Your task to perform on an android device: turn on location history Image 0: 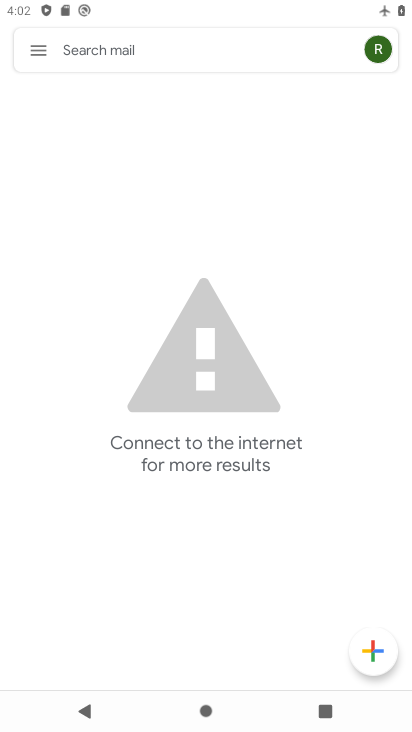
Step 0: press home button
Your task to perform on an android device: turn on location history Image 1: 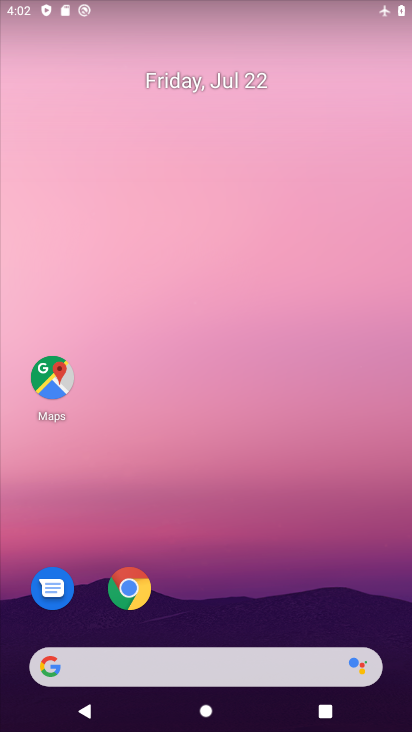
Step 1: press home button
Your task to perform on an android device: turn on location history Image 2: 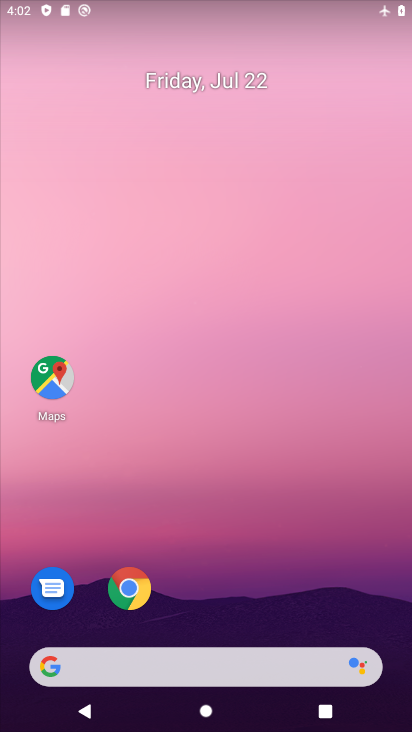
Step 2: drag from (257, 632) to (244, 215)
Your task to perform on an android device: turn on location history Image 3: 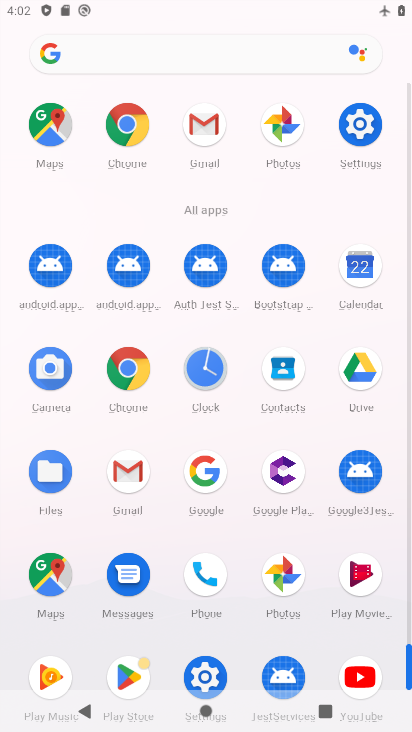
Step 3: click (46, 118)
Your task to perform on an android device: turn on location history Image 4: 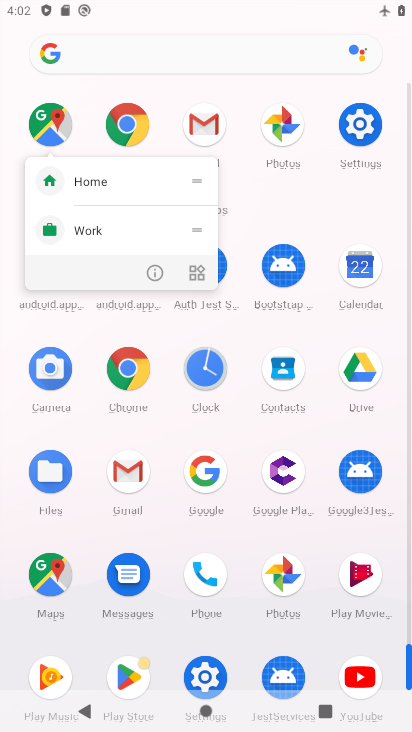
Step 4: click (46, 119)
Your task to perform on an android device: turn on location history Image 5: 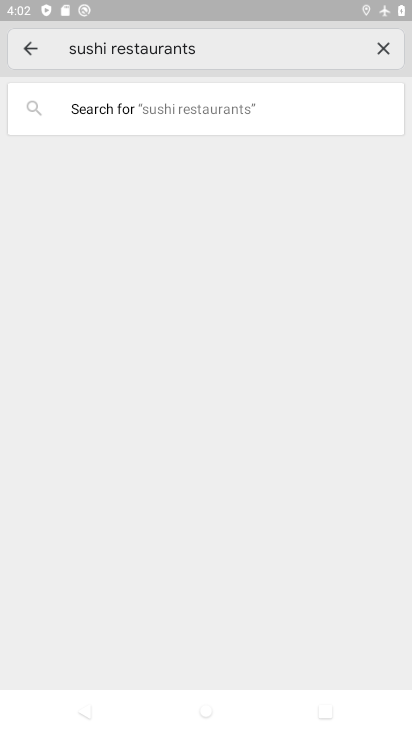
Step 5: click (46, 119)
Your task to perform on an android device: turn on location history Image 6: 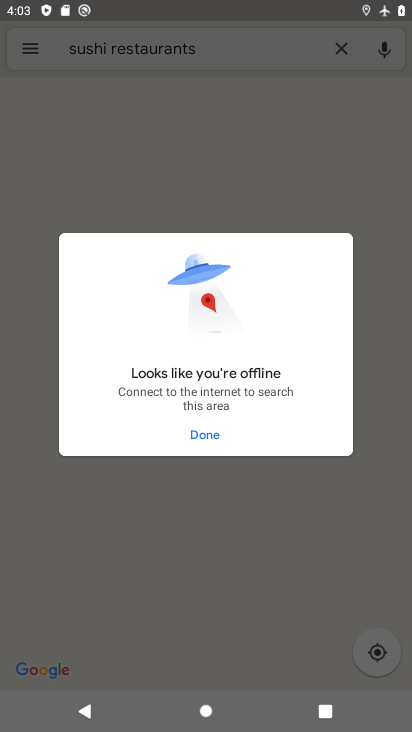
Step 6: click (27, 57)
Your task to perform on an android device: turn on location history Image 7: 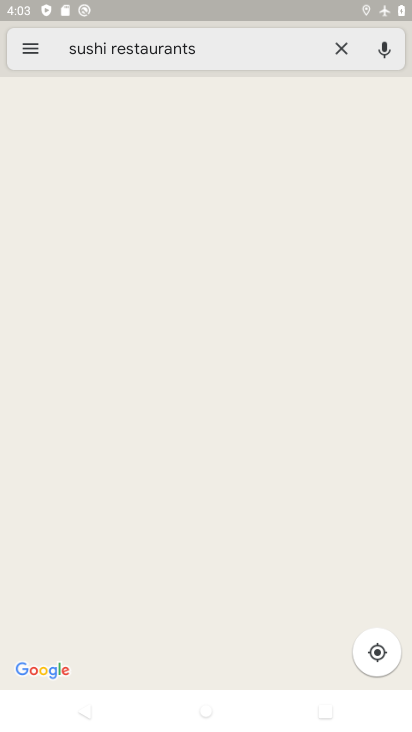
Step 7: click (27, 59)
Your task to perform on an android device: turn on location history Image 8: 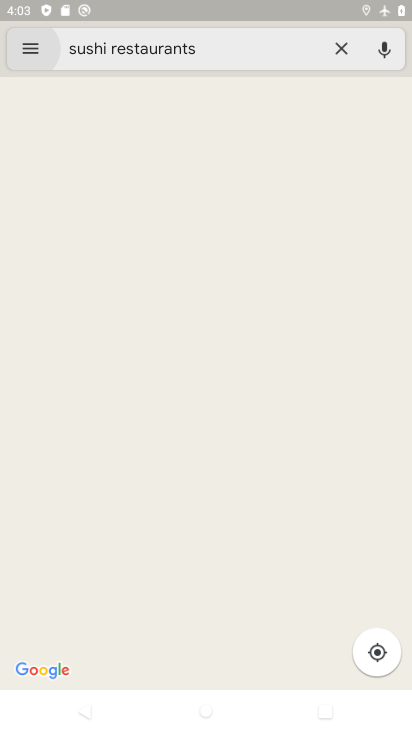
Step 8: click (33, 46)
Your task to perform on an android device: turn on location history Image 9: 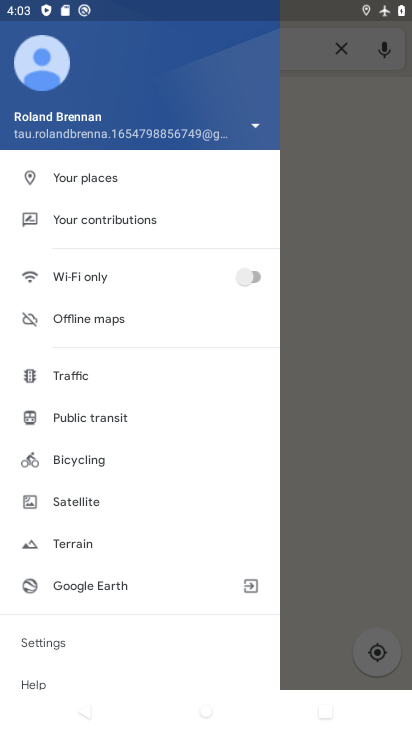
Step 9: task complete